Your task to perform on an android device: Open Yahoo.com Image 0: 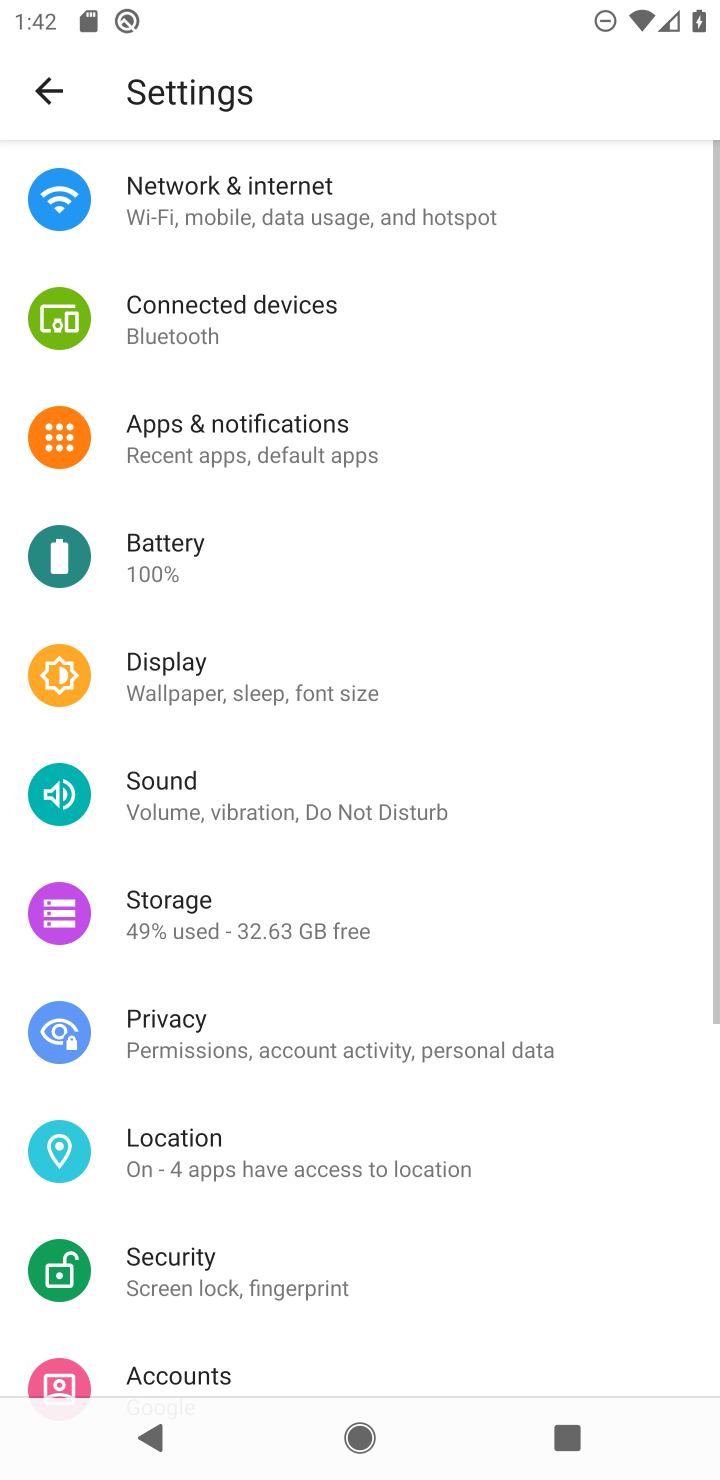
Step 0: press home button
Your task to perform on an android device: Open Yahoo.com Image 1: 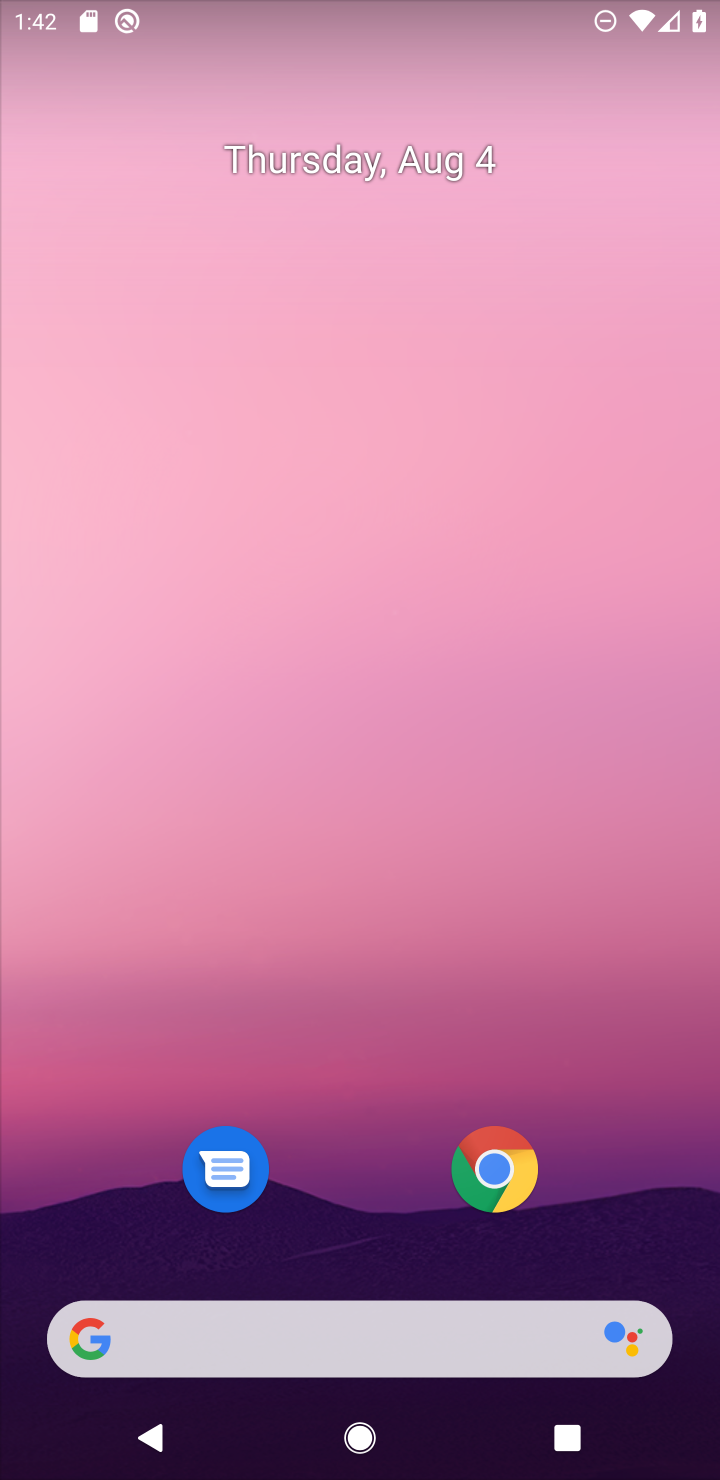
Step 1: click (495, 1193)
Your task to perform on an android device: Open Yahoo.com Image 2: 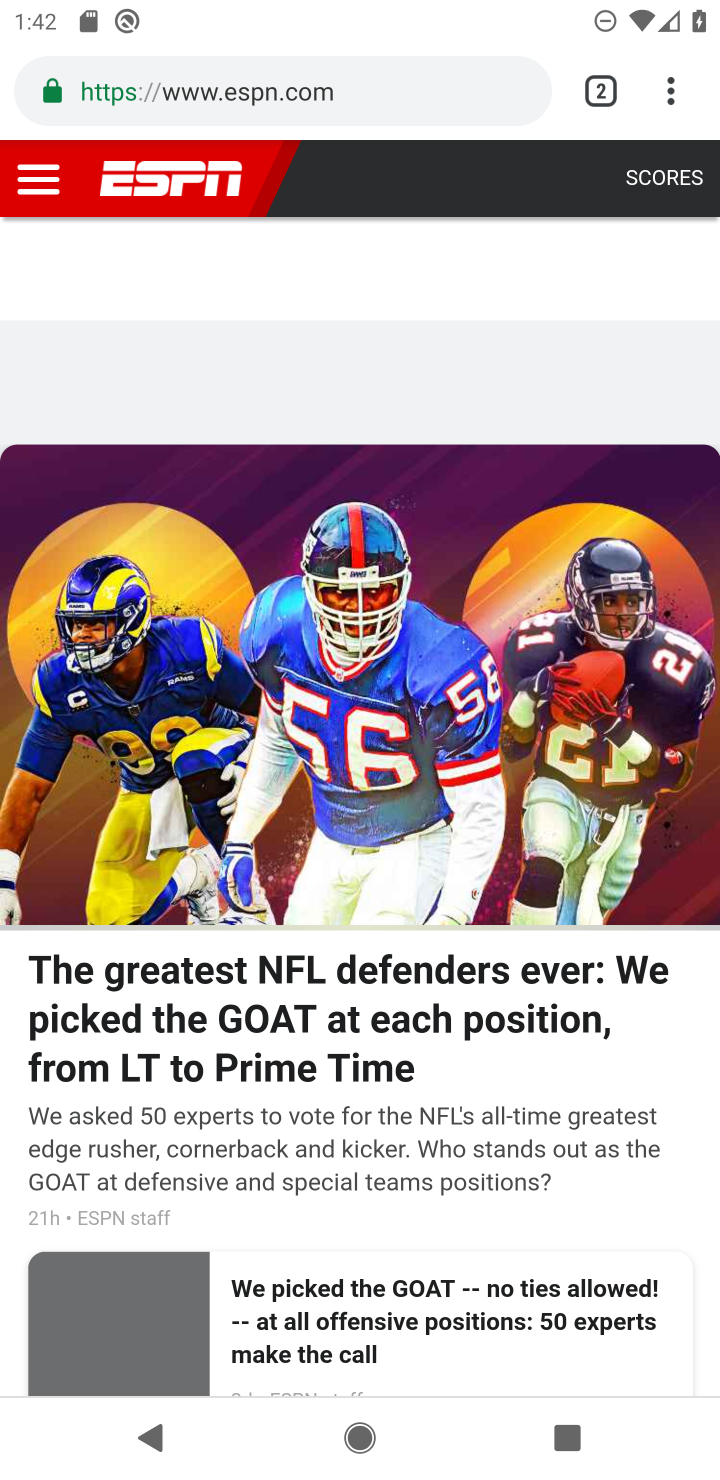
Step 2: click (241, 103)
Your task to perform on an android device: Open Yahoo.com Image 3: 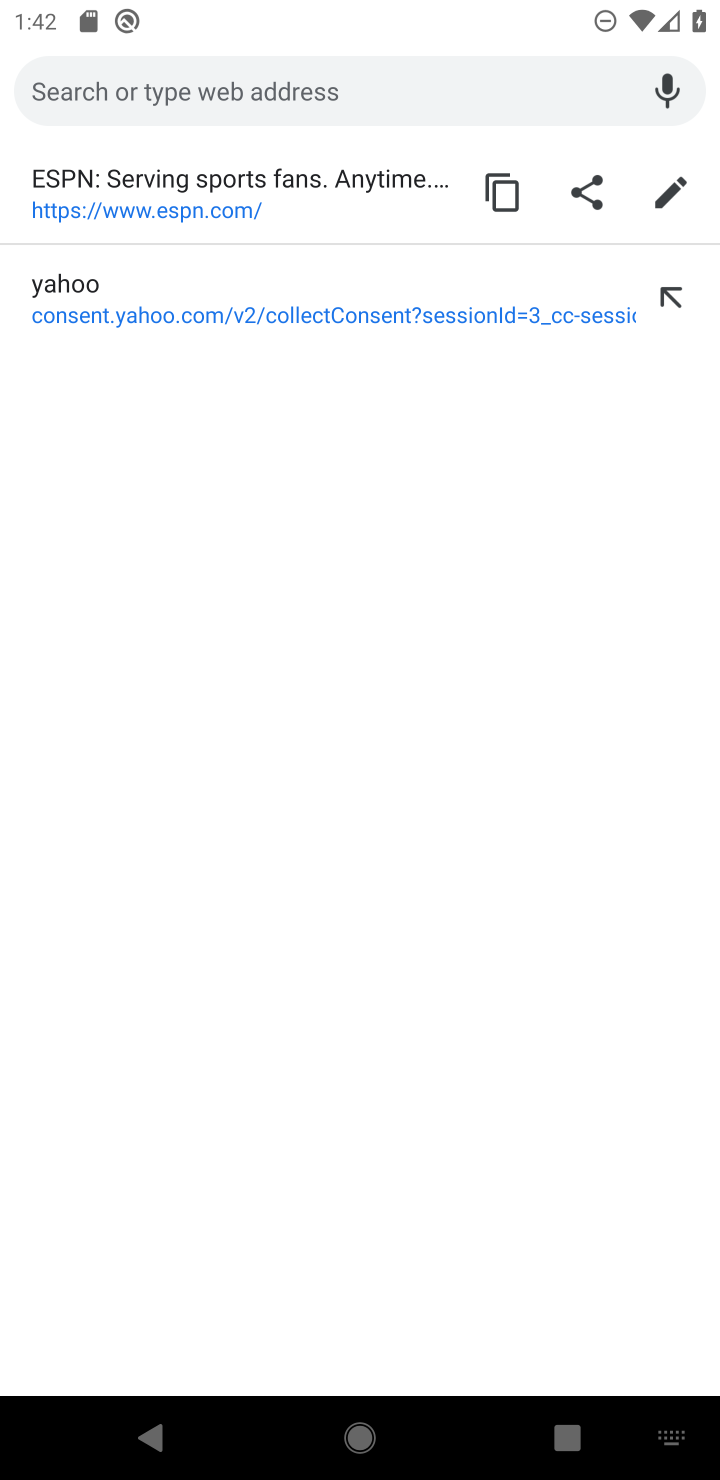
Step 3: type "yahoo.com"
Your task to perform on an android device: Open Yahoo.com Image 4: 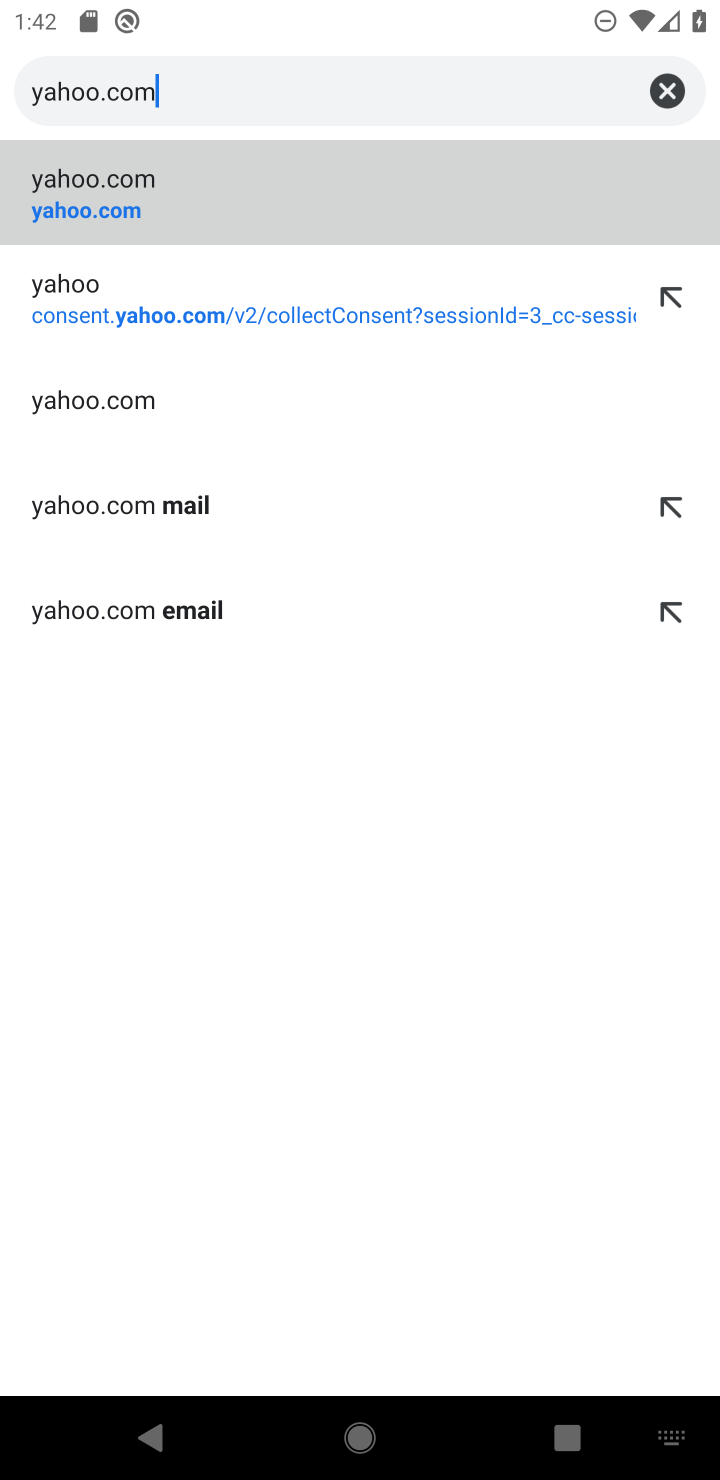
Step 4: click (61, 196)
Your task to perform on an android device: Open Yahoo.com Image 5: 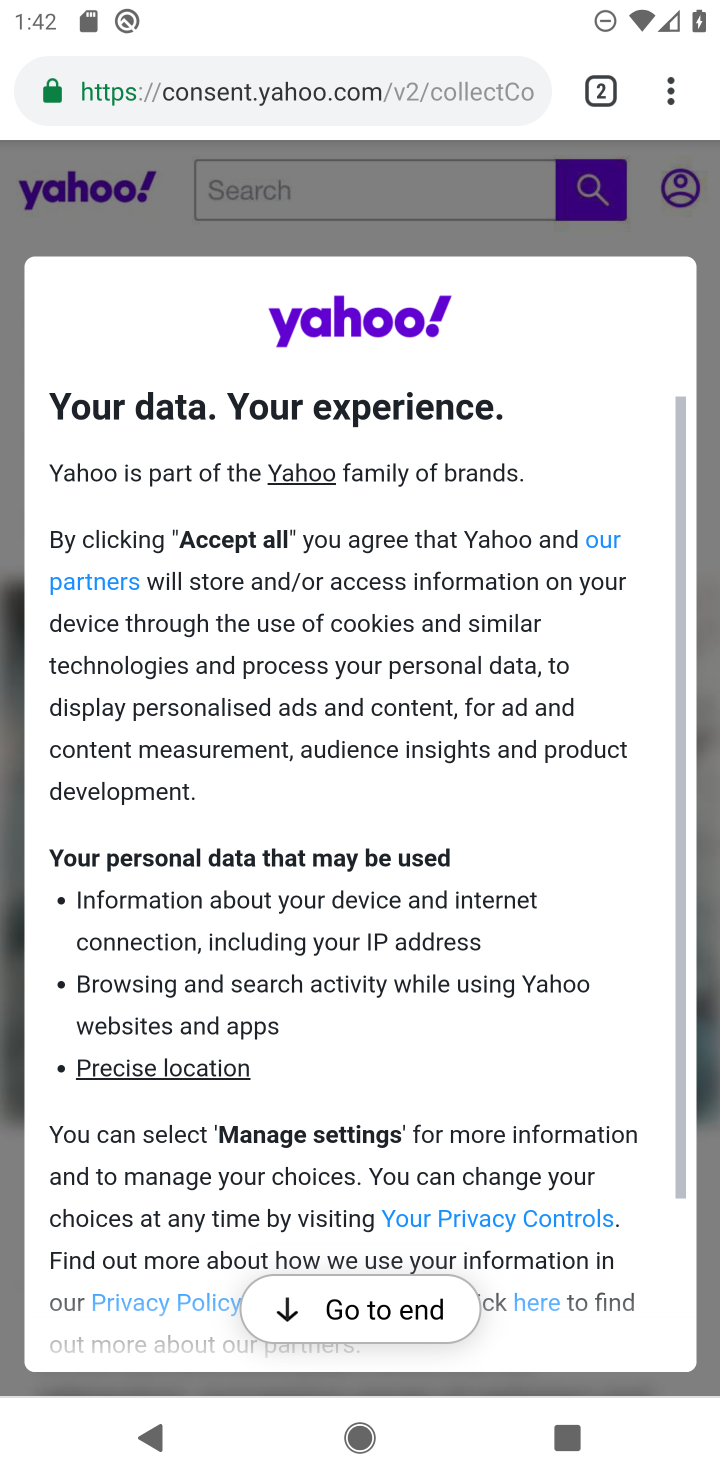
Step 5: task complete